Your task to perform on an android device: Search for pizza restaurants on Maps Image 0: 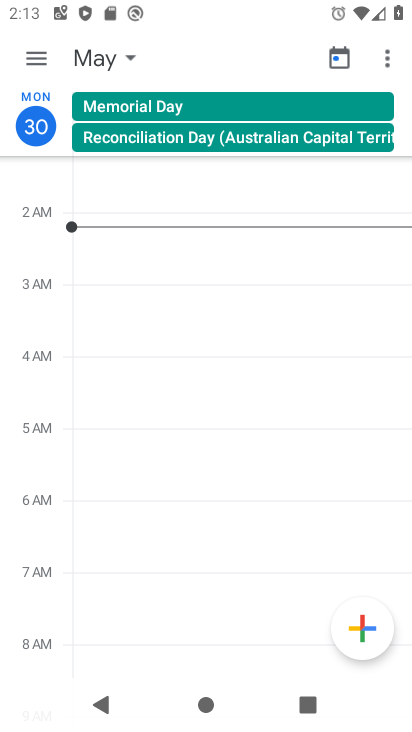
Step 0: press home button
Your task to perform on an android device: Search for pizza restaurants on Maps Image 1: 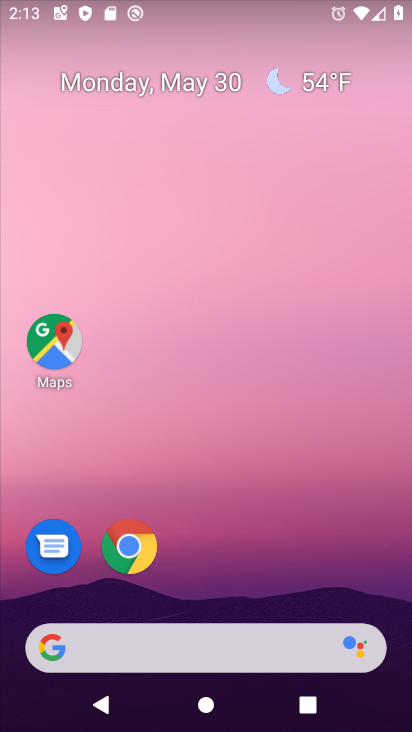
Step 1: click (52, 335)
Your task to perform on an android device: Search for pizza restaurants on Maps Image 2: 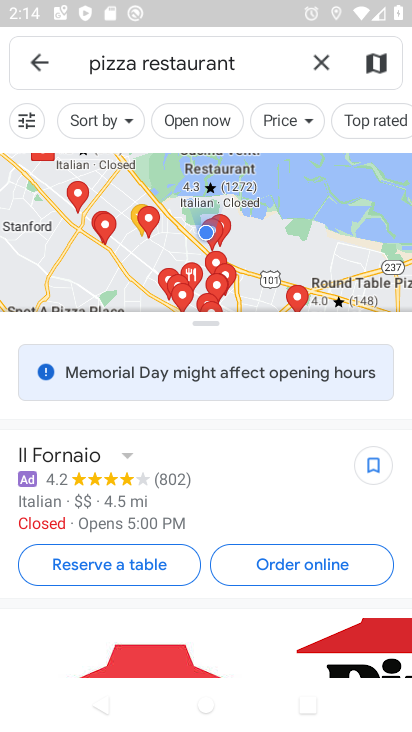
Step 2: drag from (215, 610) to (228, 209)
Your task to perform on an android device: Search for pizza restaurants on Maps Image 3: 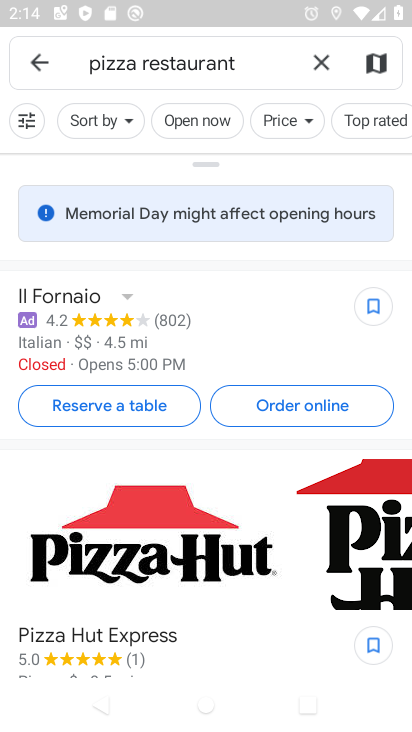
Step 3: drag from (217, 599) to (221, 204)
Your task to perform on an android device: Search for pizza restaurants on Maps Image 4: 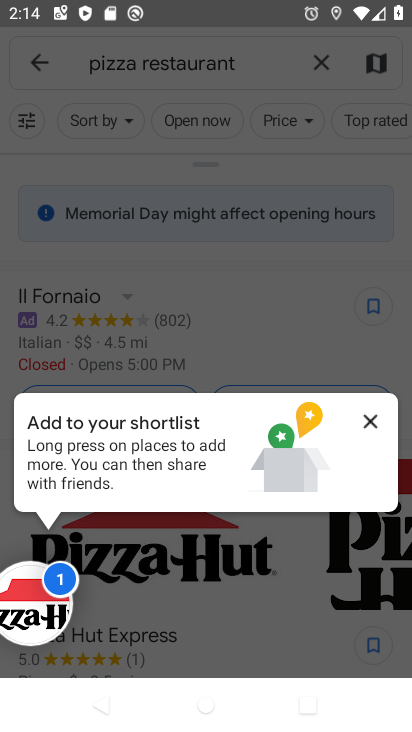
Step 4: drag from (216, 323) to (209, 227)
Your task to perform on an android device: Search for pizza restaurants on Maps Image 5: 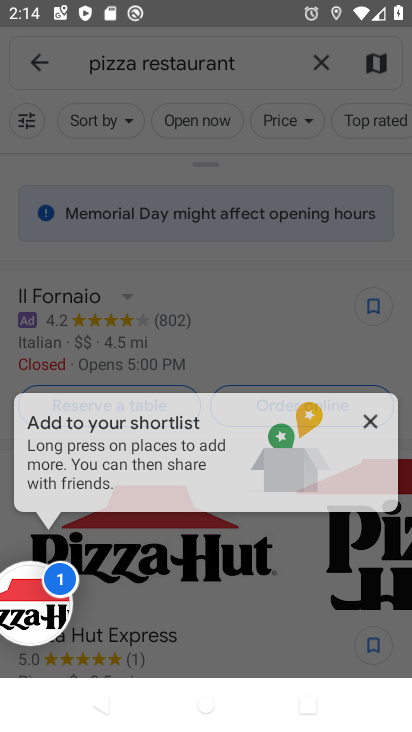
Step 5: click (241, 221)
Your task to perform on an android device: Search for pizza restaurants on Maps Image 6: 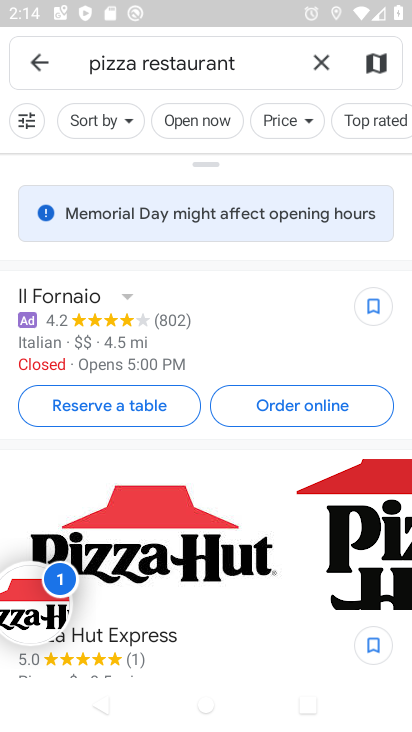
Step 6: click (367, 419)
Your task to perform on an android device: Search for pizza restaurants on Maps Image 7: 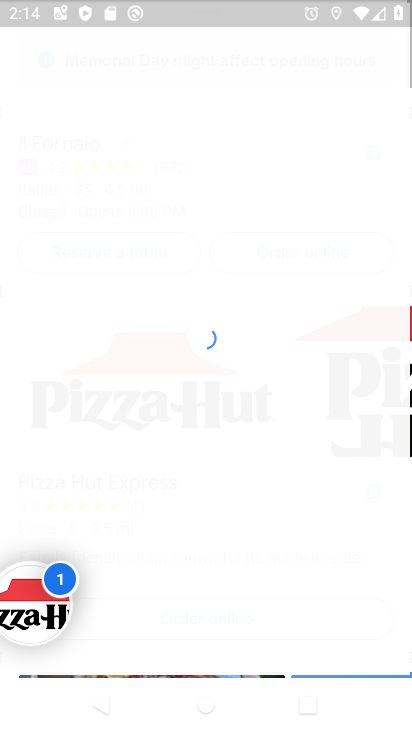
Step 7: task complete